Your task to perform on an android device: What's the weather today? Image 0: 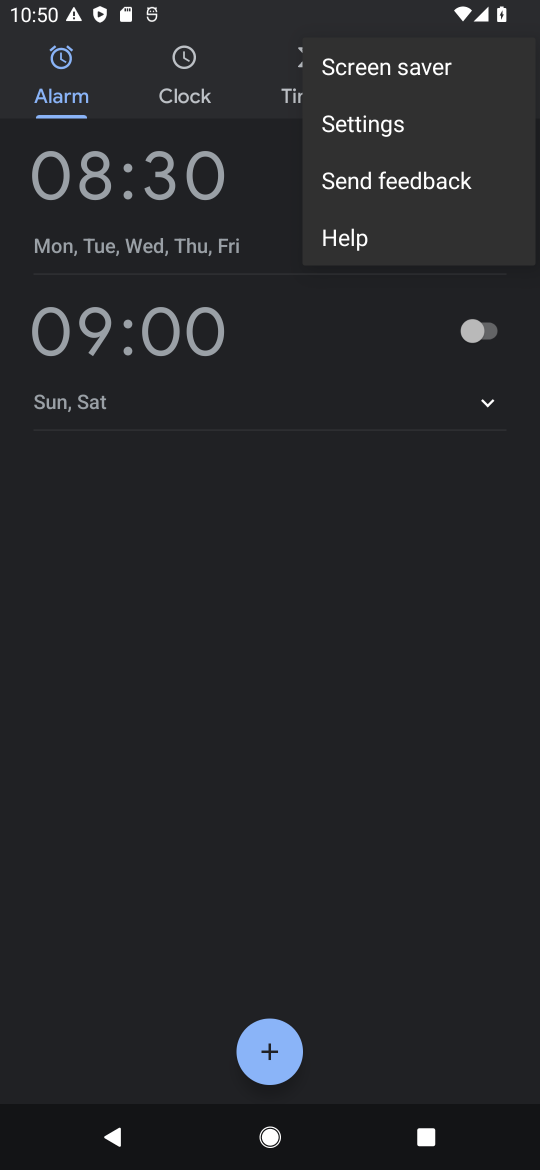
Step 0: press home button
Your task to perform on an android device: What's the weather today? Image 1: 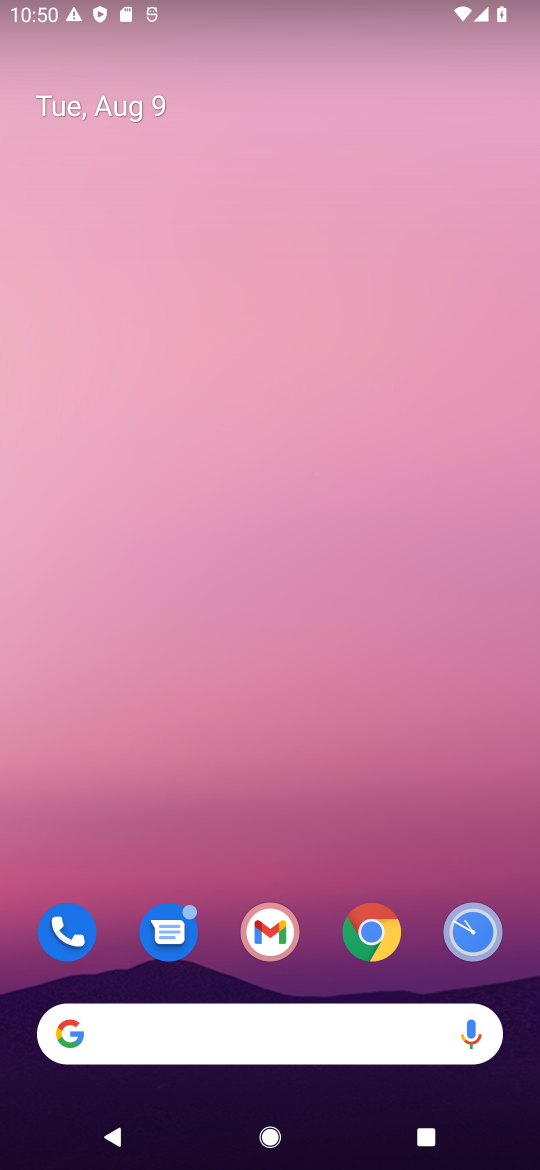
Step 1: click (203, 1034)
Your task to perform on an android device: What's the weather today? Image 2: 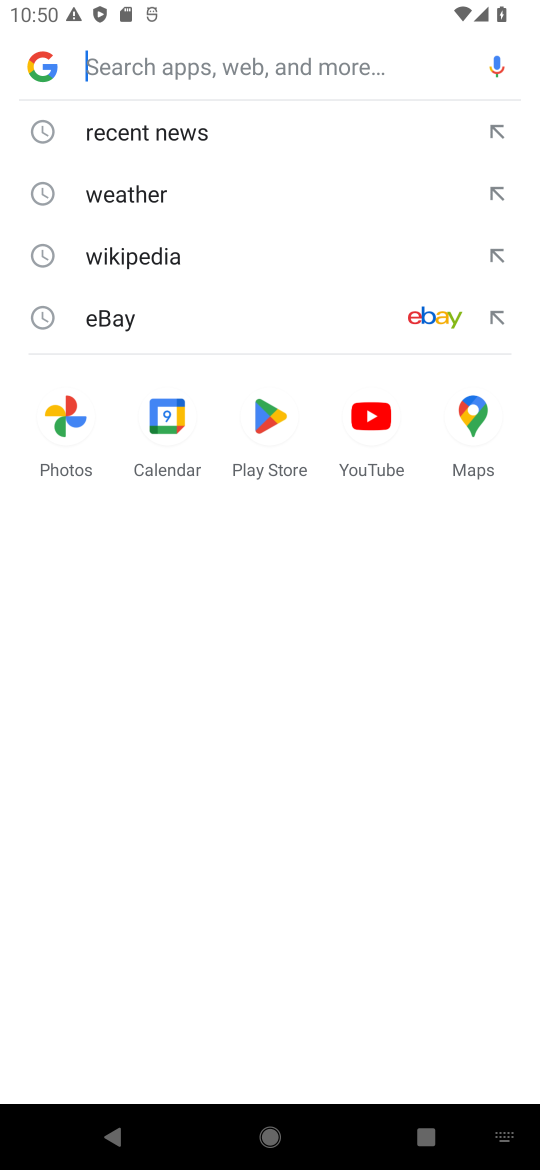
Step 2: click (96, 207)
Your task to perform on an android device: What's the weather today? Image 3: 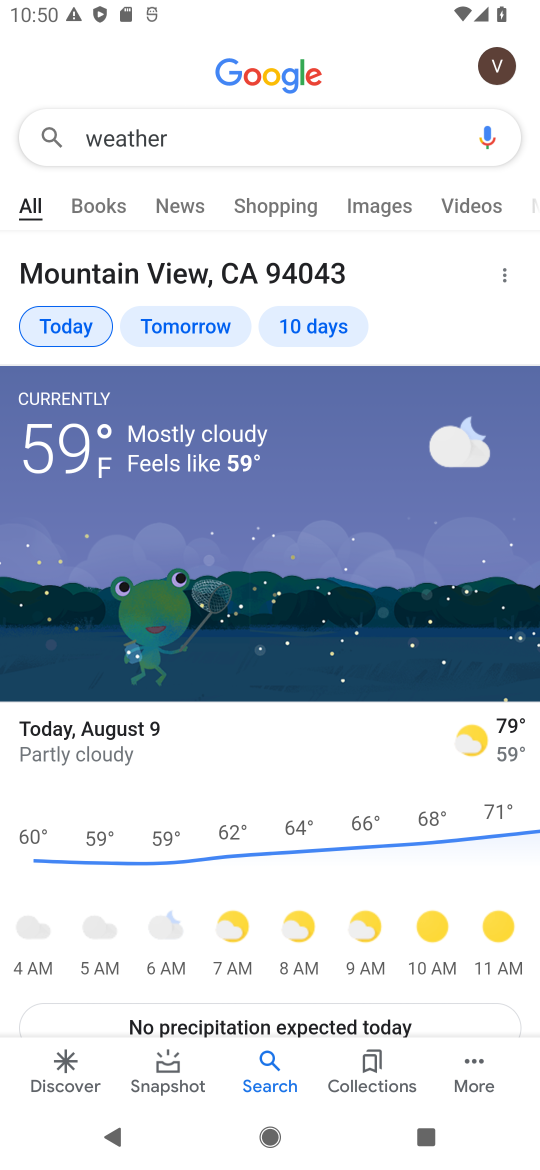
Step 3: task complete